Your task to perform on an android device: Open the map Image 0: 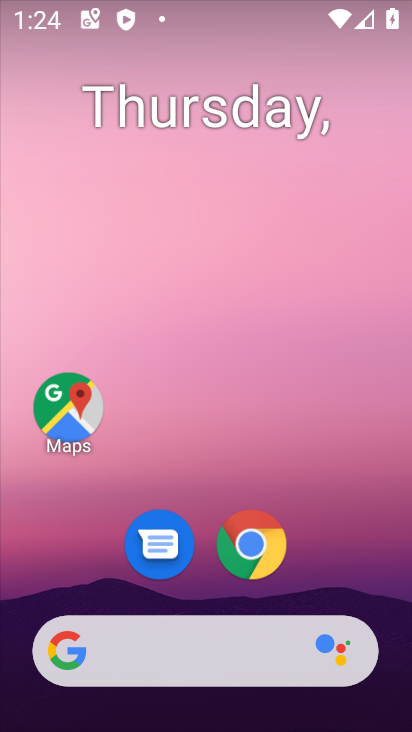
Step 0: drag from (182, 514) to (167, 57)
Your task to perform on an android device: Open the map Image 1: 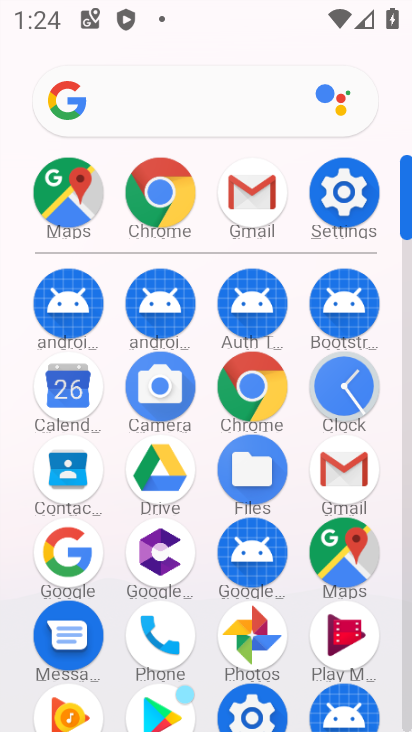
Step 1: click (64, 192)
Your task to perform on an android device: Open the map Image 2: 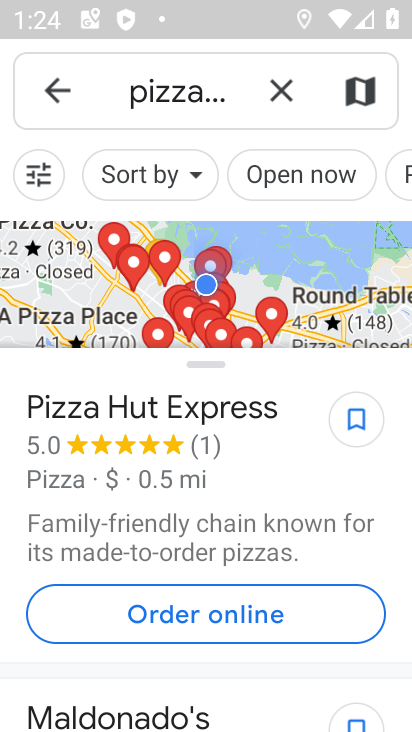
Step 2: task complete